Your task to perform on an android device: What's the weather today? Image 0: 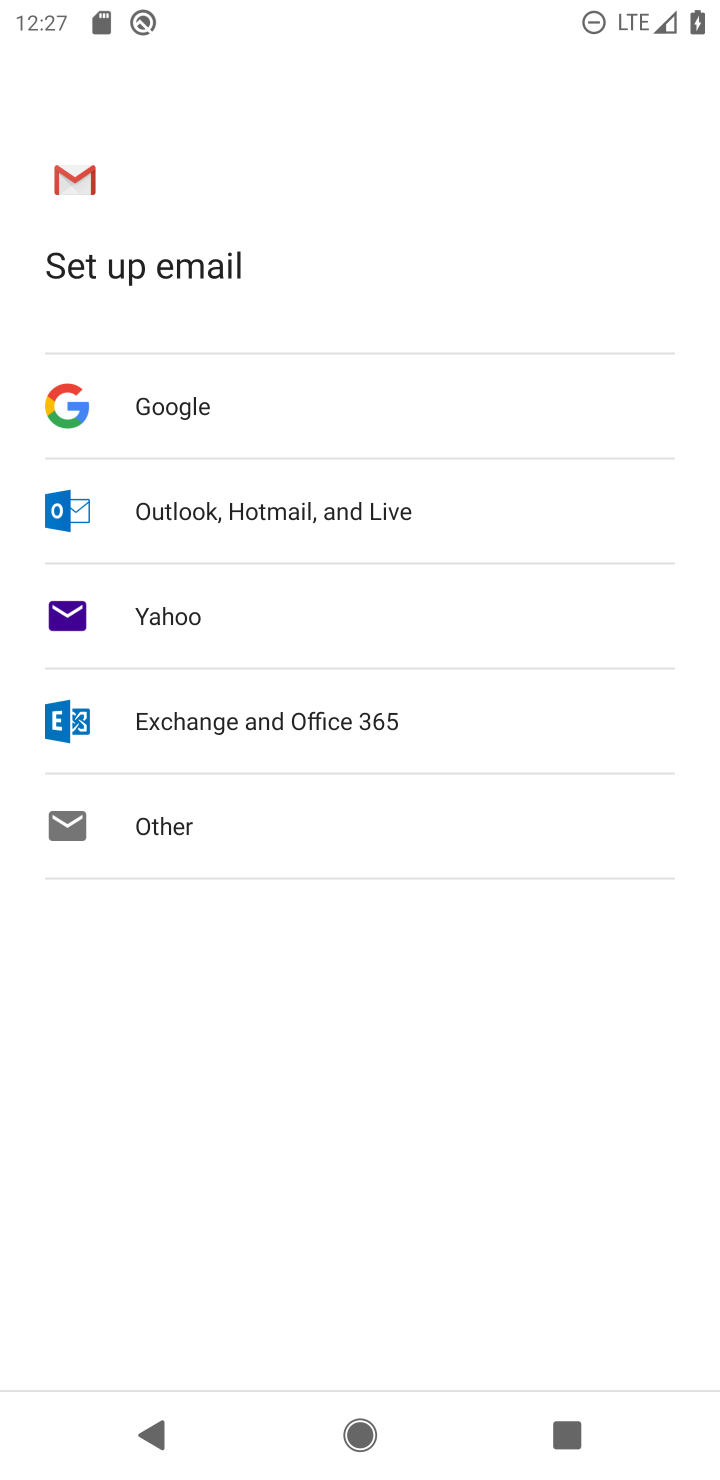
Step 0: press home button
Your task to perform on an android device: What's the weather today? Image 1: 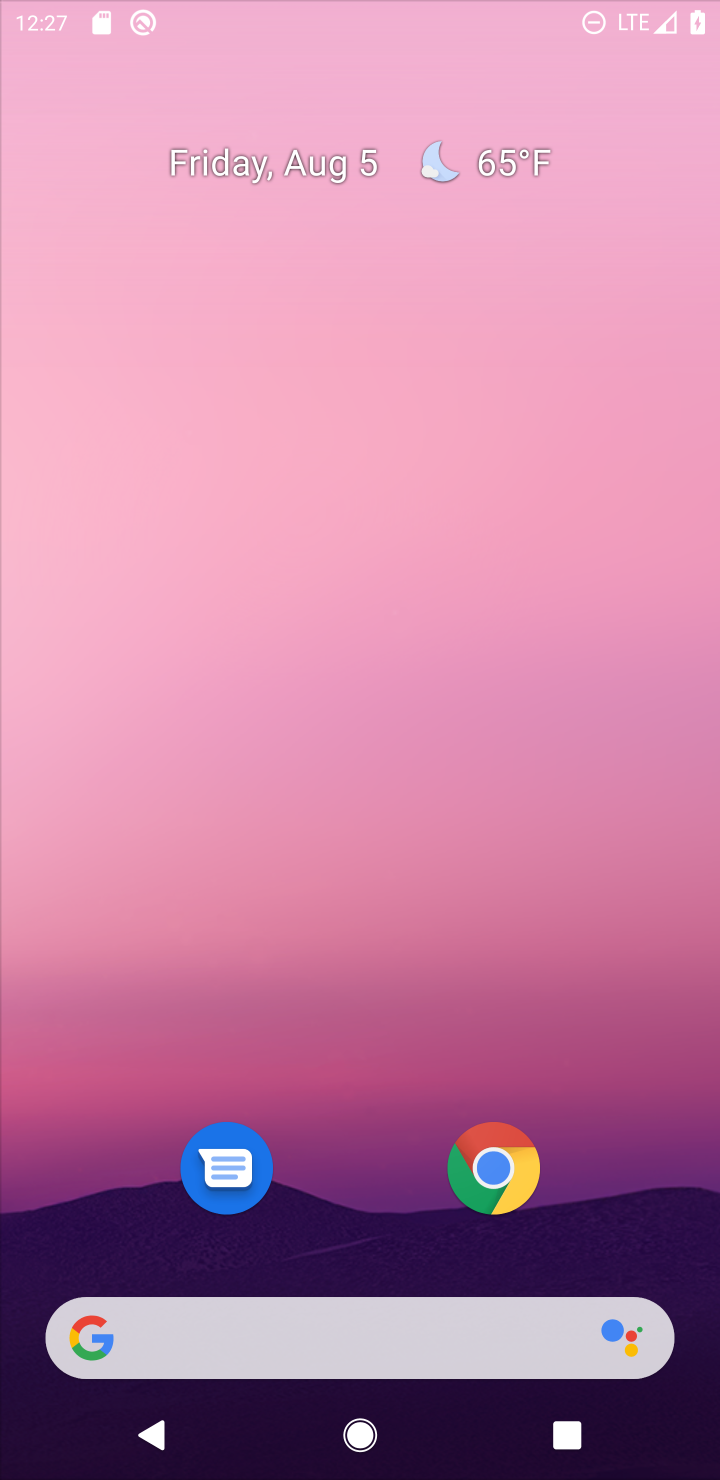
Step 1: drag from (662, 1262) to (352, 15)
Your task to perform on an android device: What's the weather today? Image 2: 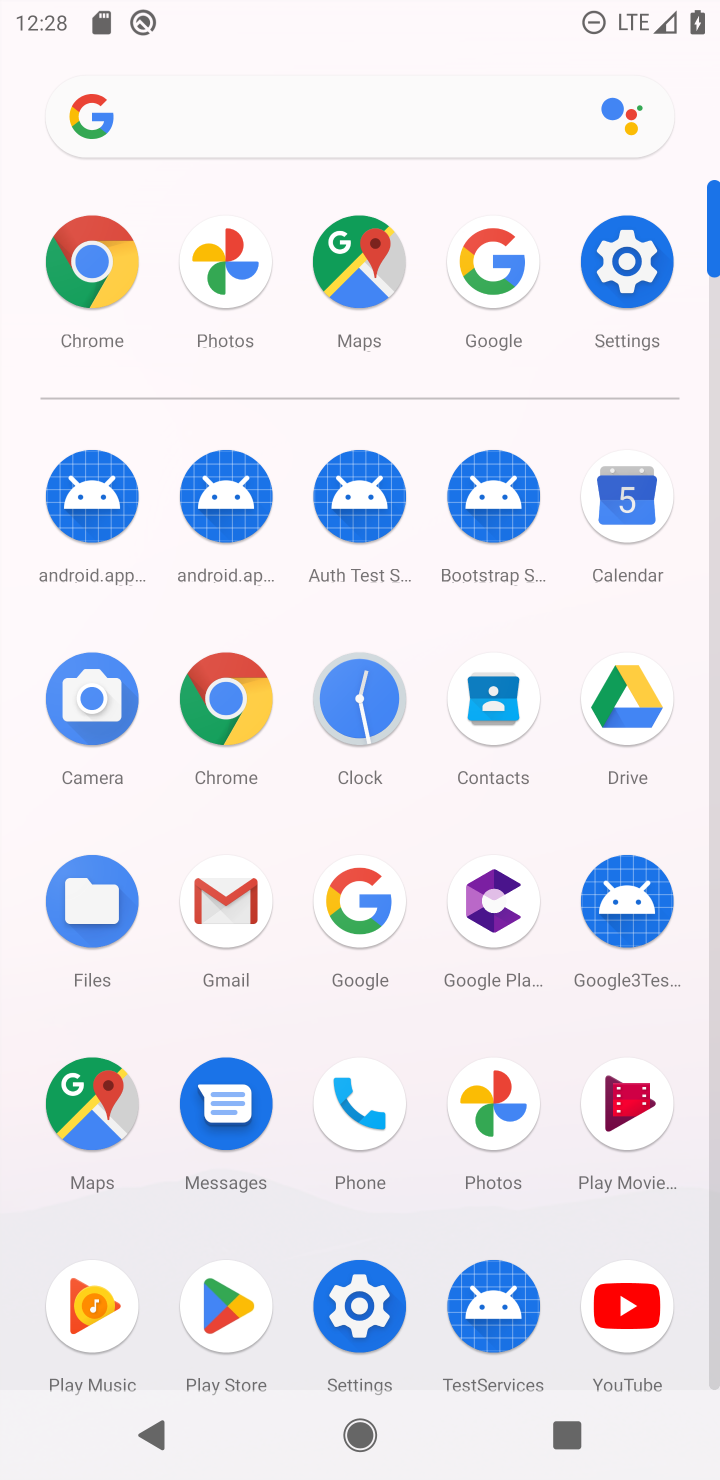
Step 2: click (342, 876)
Your task to perform on an android device: What's the weather today? Image 3: 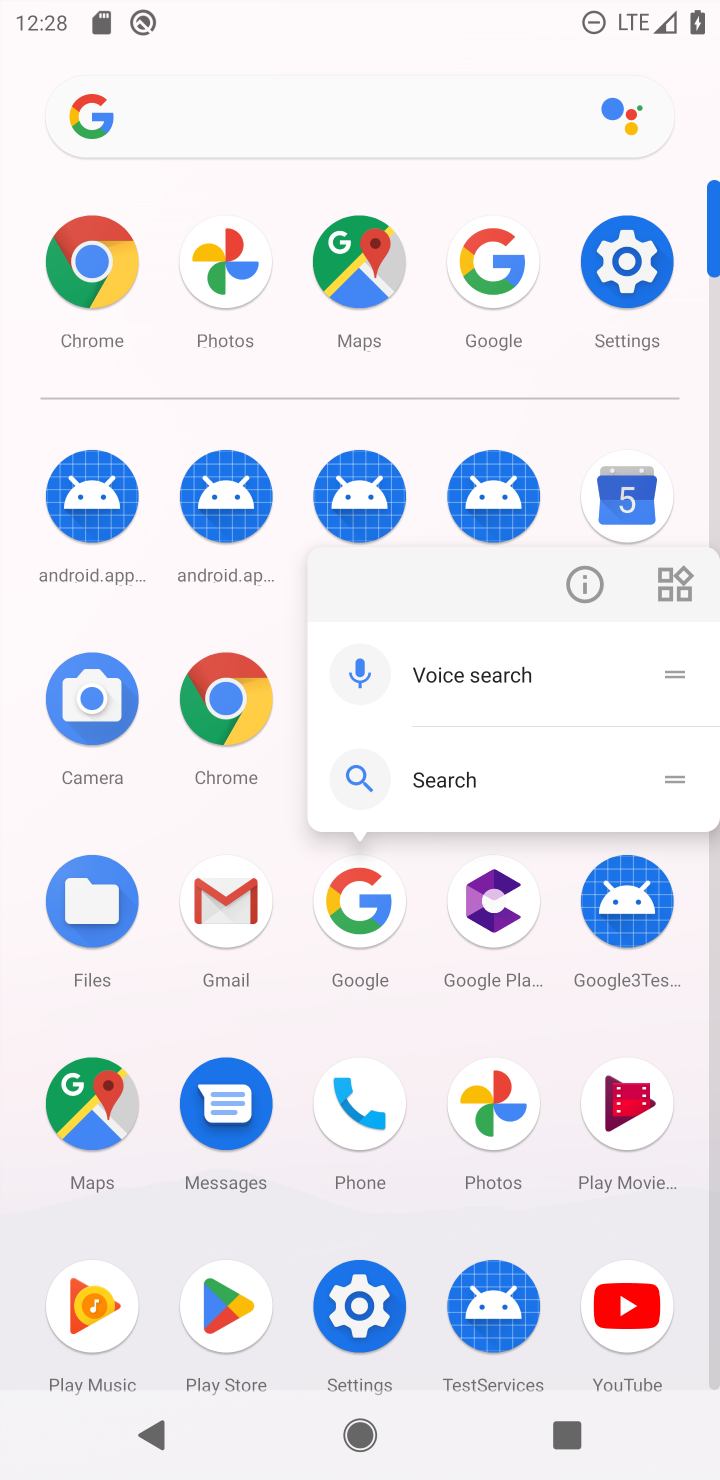
Step 3: click (350, 921)
Your task to perform on an android device: What's the weather today? Image 4: 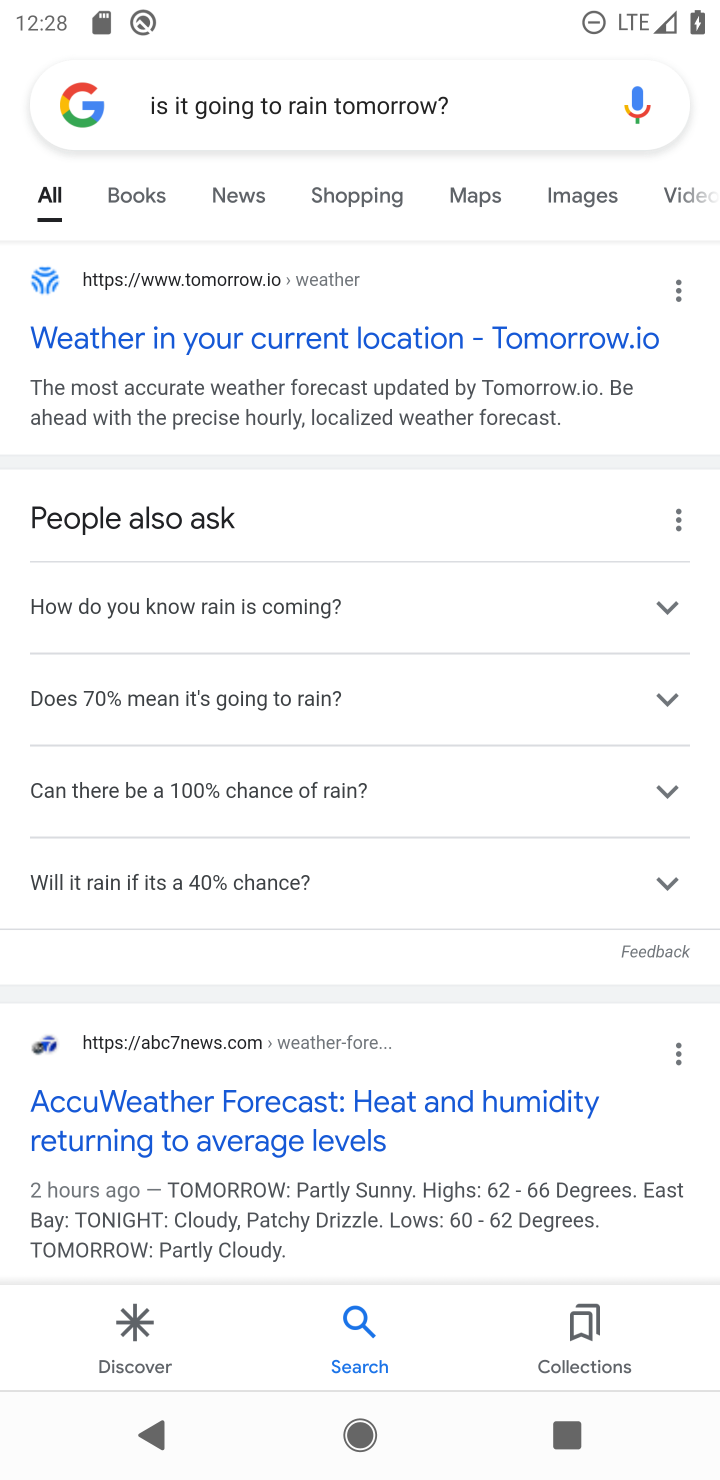
Step 4: press back button
Your task to perform on an android device: What's the weather today? Image 5: 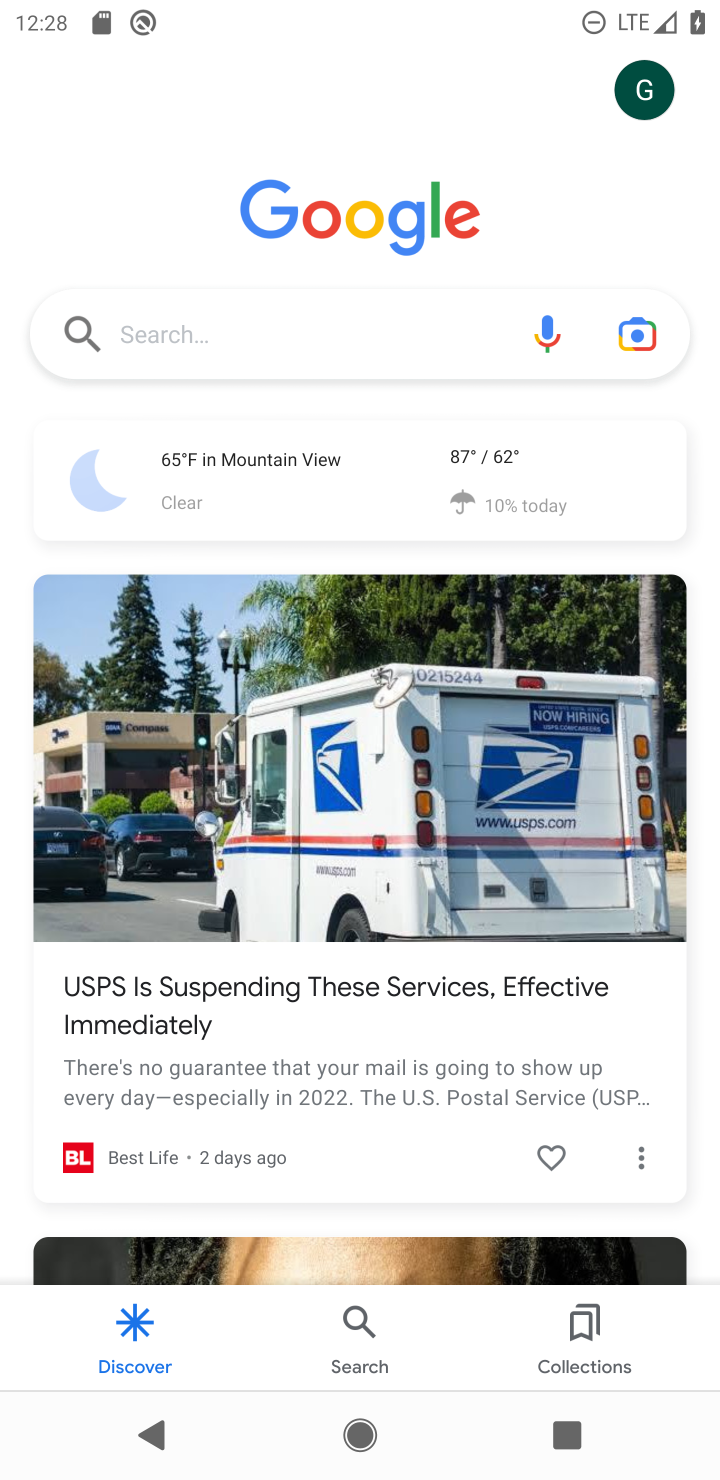
Step 5: click (169, 336)
Your task to perform on an android device: What's the weather today? Image 6: 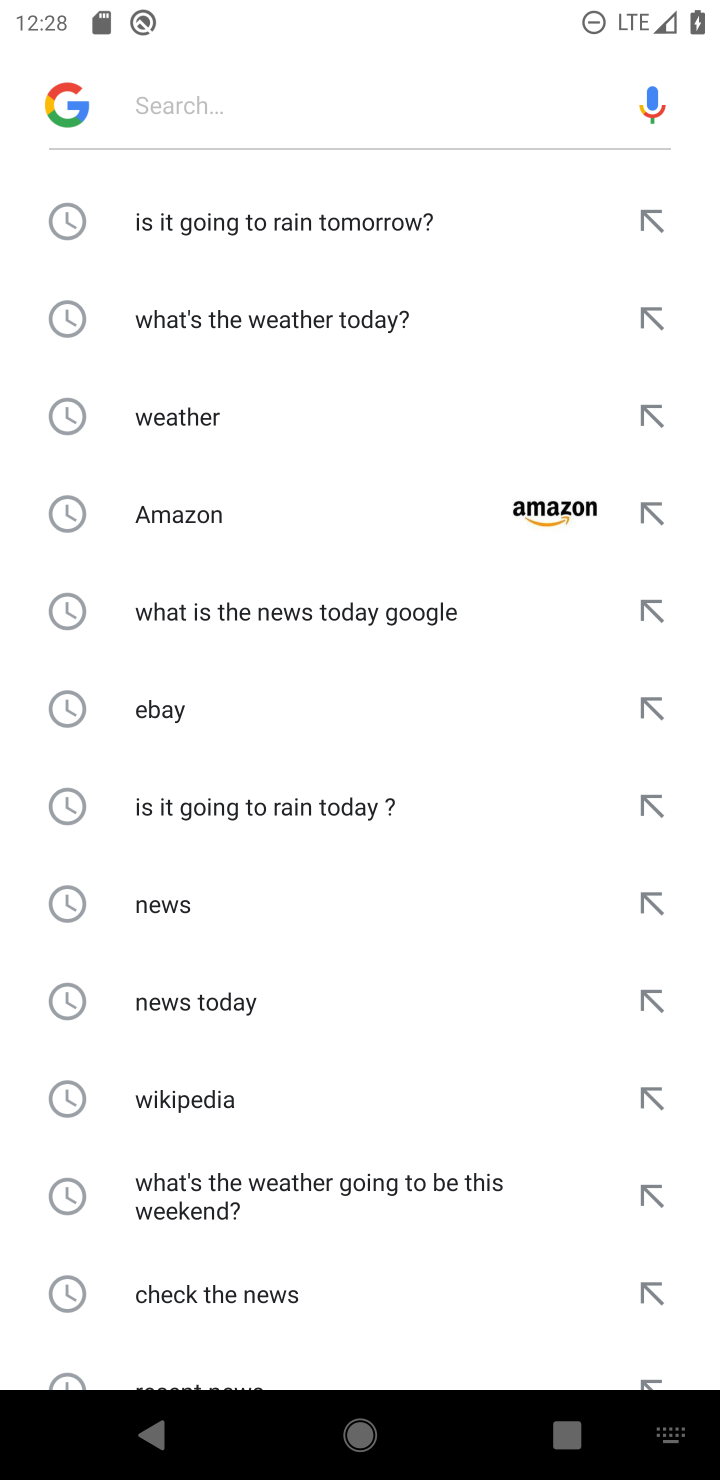
Step 6: click (294, 329)
Your task to perform on an android device: What's the weather today? Image 7: 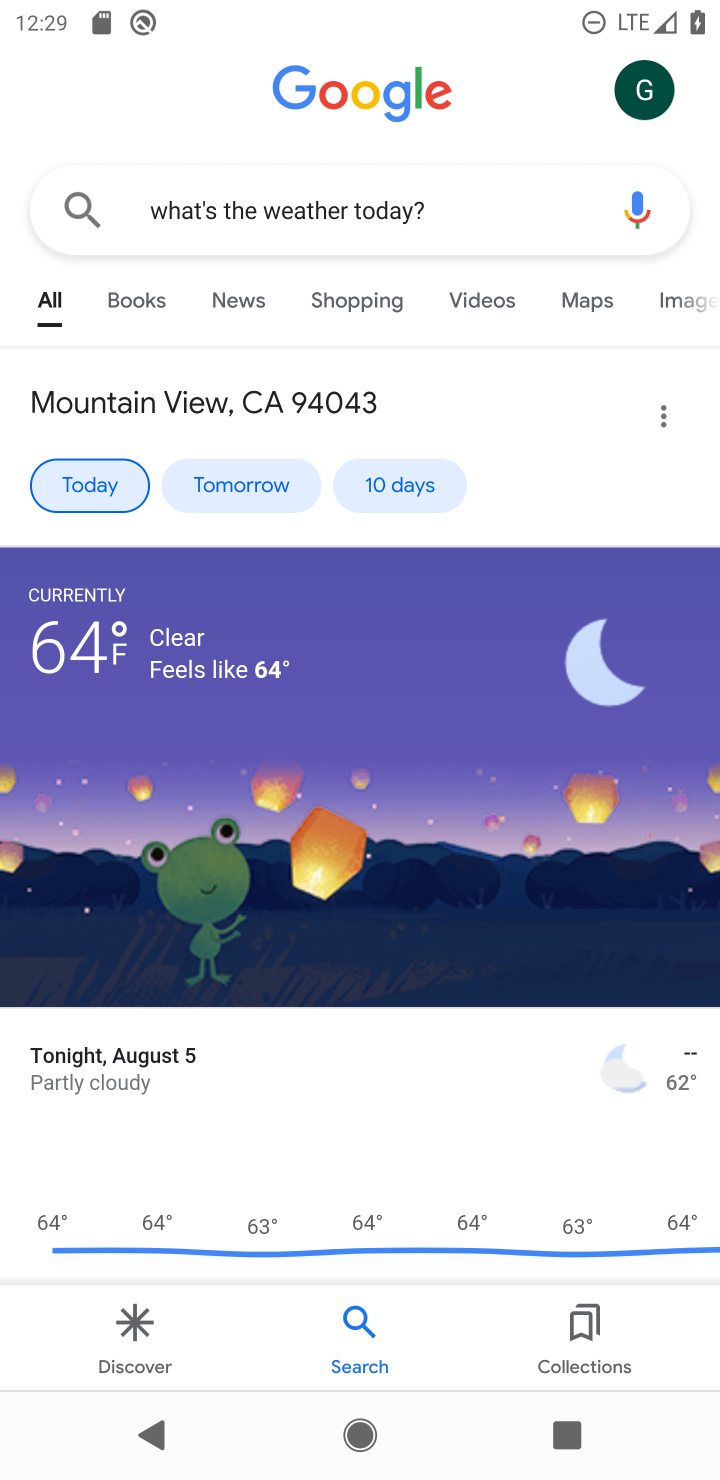
Step 7: task complete